Your task to perform on an android device: install app "LinkedIn" Image 0: 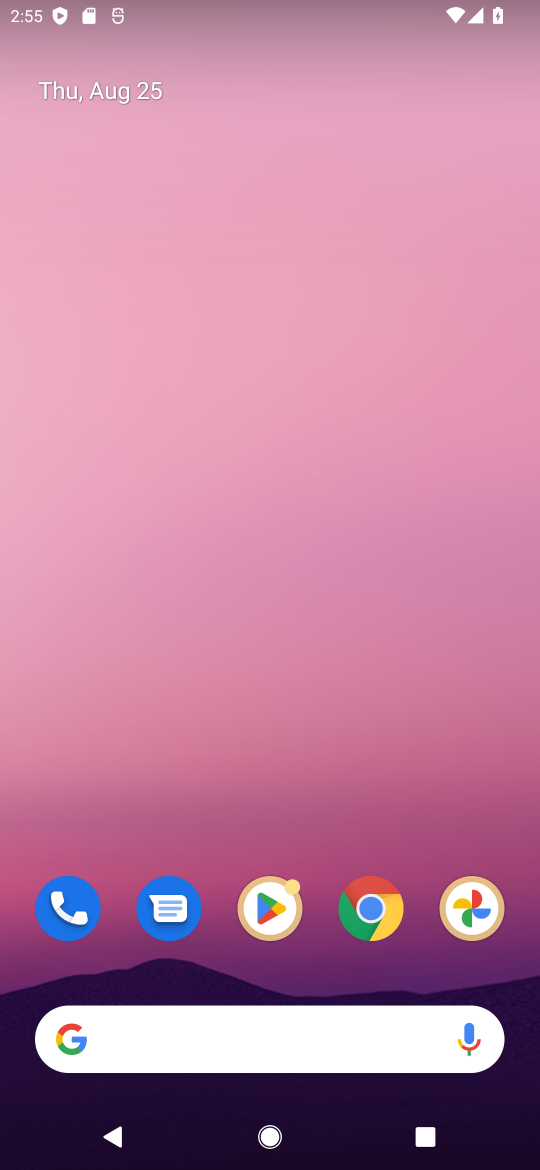
Step 0: click (261, 918)
Your task to perform on an android device: install app "LinkedIn" Image 1: 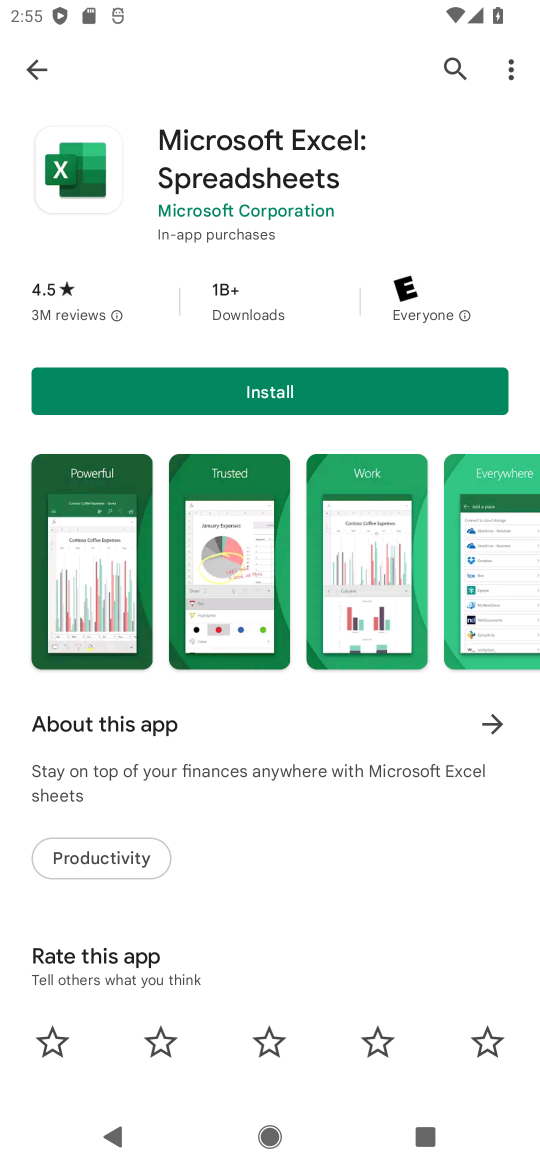
Step 1: click (449, 67)
Your task to perform on an android device: install app "LinkedIn" Image 2: 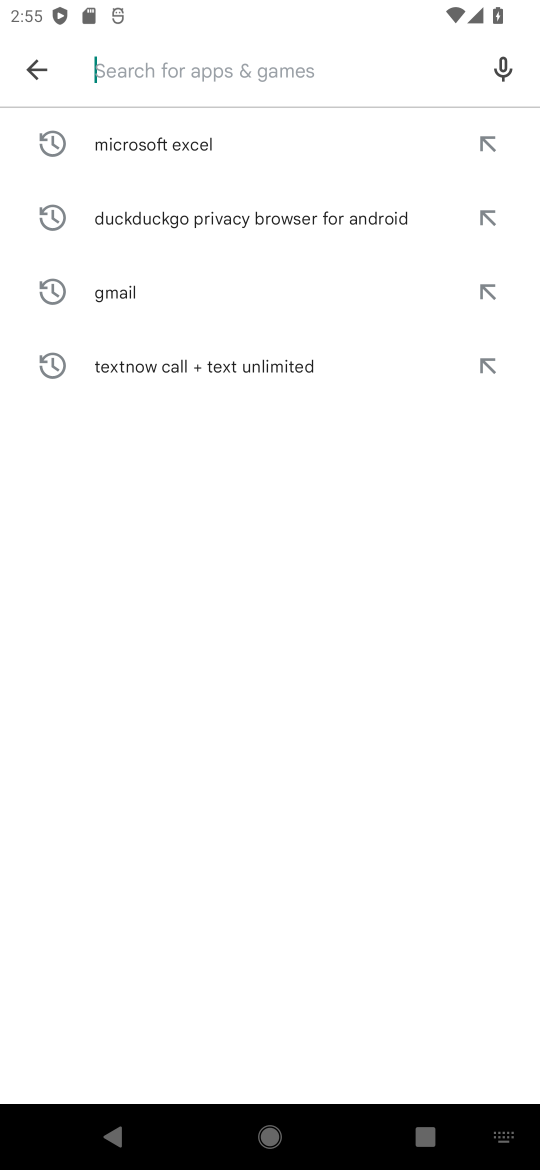
Step 2: type "LinkedIn"
Your task to perform on an android device: install app "LinkedIn" Image 3: 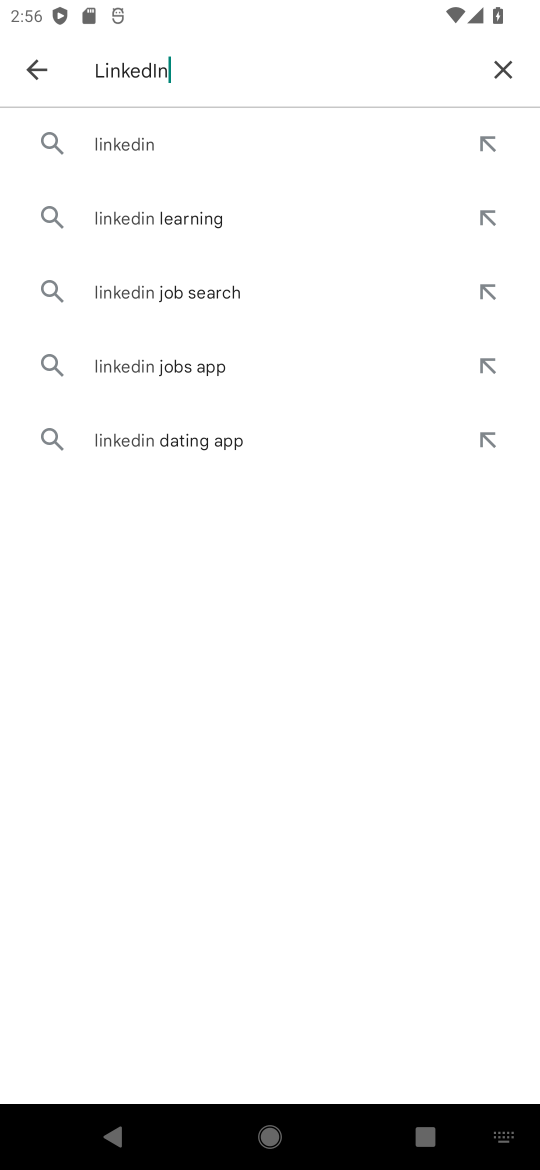
Step 3: click (203, 150)
Your task to perform on an android device: install app "LinkedIn" Image 4: 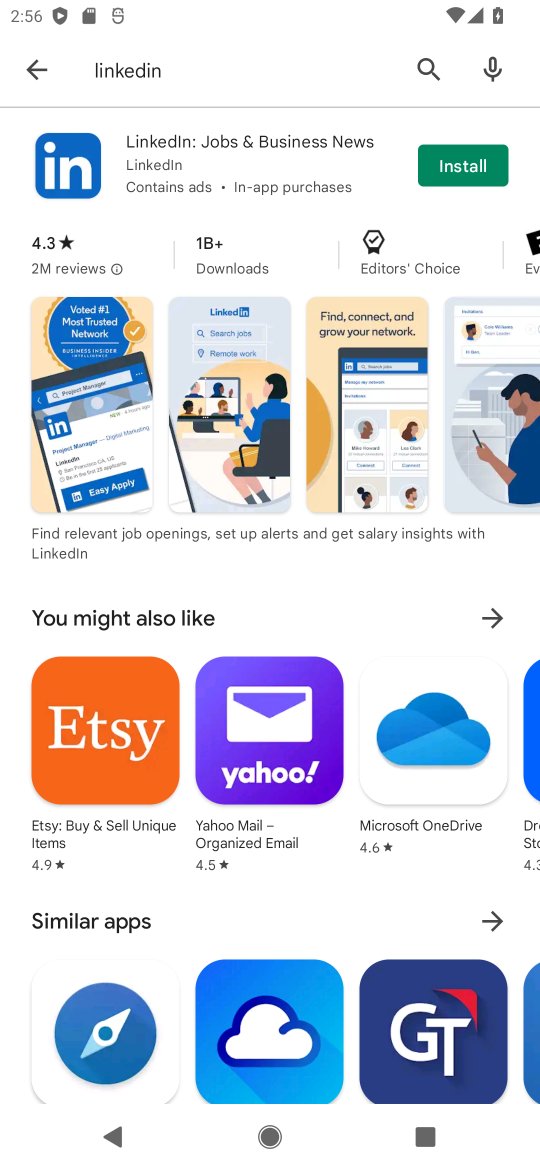
Step 4: click (486, 165)
Your task to perform on an android device: install app "LinkedIn" Image 5: 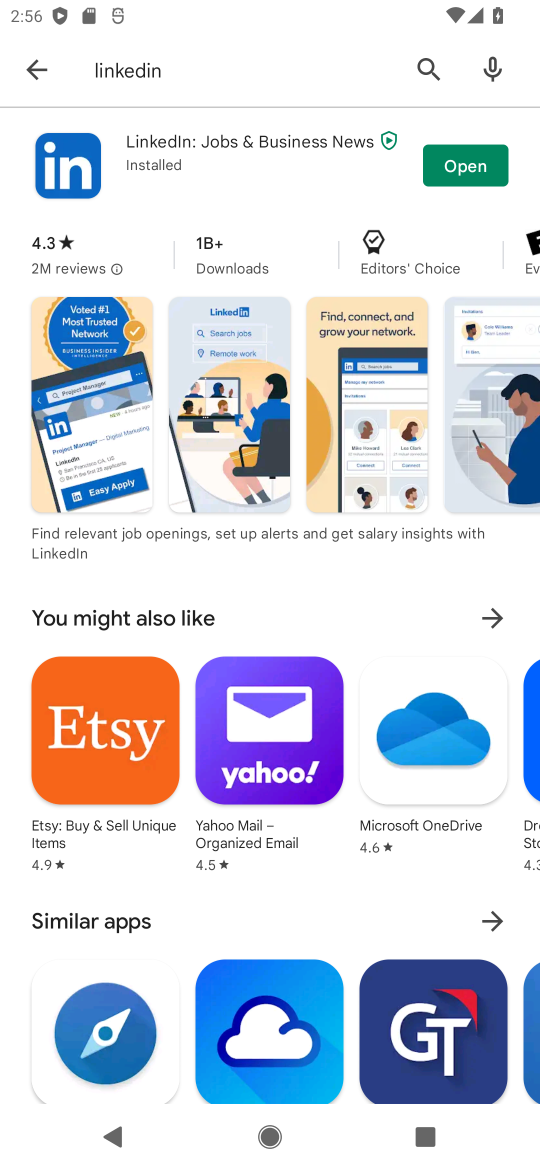
Step 5: task complete